Your task to perform on an android device: uninstall "Microsoft Excel" Image 0: 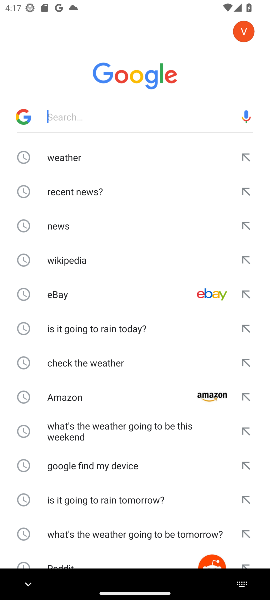
Step 0: press home button
Your task to perform on an android device: uninstall "Microsoft Excel" Image 1: 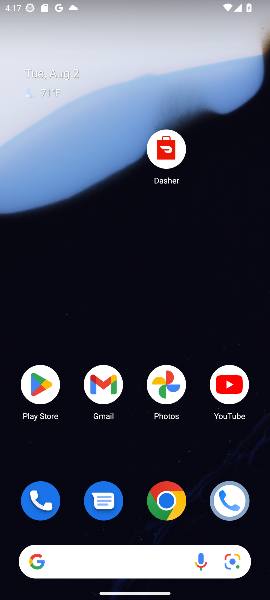
Step 1: click (31, 376)
Your task to perform on an android device: uninstall "Microsoft Excel" Image 2: 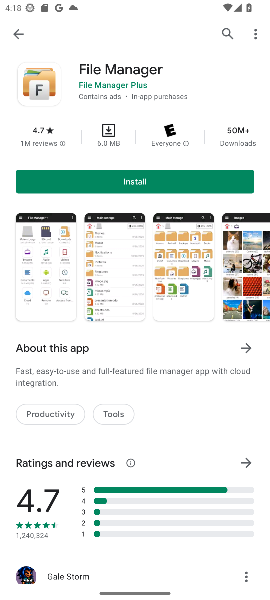
Step 2: click (224, 34)
Your task to perform on an android device: uninstall "Microsoft Excel" Image 3: 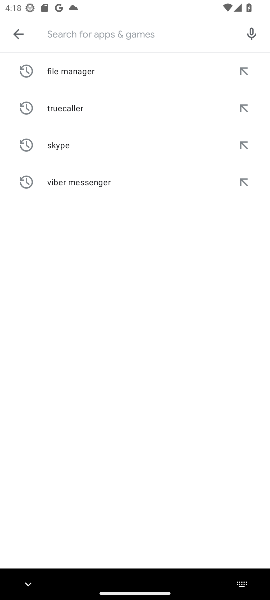
Step 3: type "Microsoft Excel"
Your task to perform on an android device: uninstall "Microsoft Excel" Image 4: 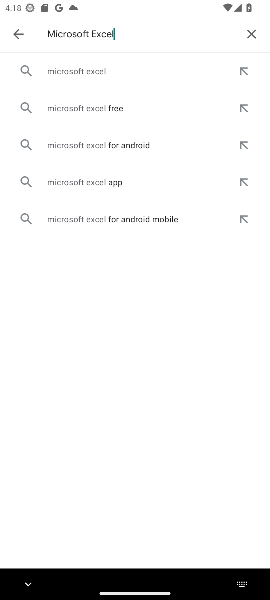
Step 4: click (71, 74)
Your task to perform on an android device: uninstall "Microsoft Excel" Image 5: 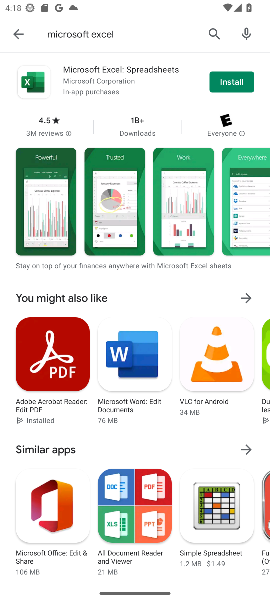
Step 5: task complete